Your task to perform on an android device: toggle sleep mode Image 0: 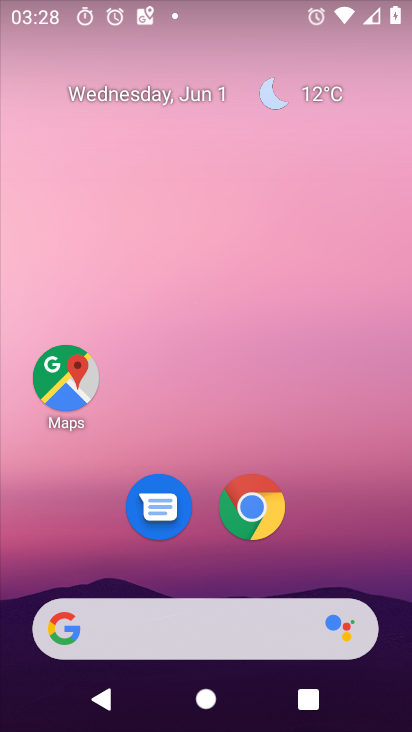
Step 0: drag from (329, 569) to (320, 10)
Your task to perform on an android device: toggle sleep mode Image 1: 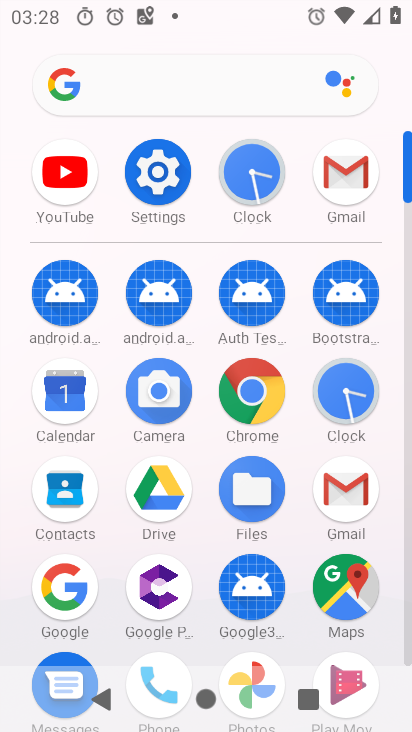
Step 1: click (152, 175)
Your task to perform on an android device: toggle sleep mode Image 2: 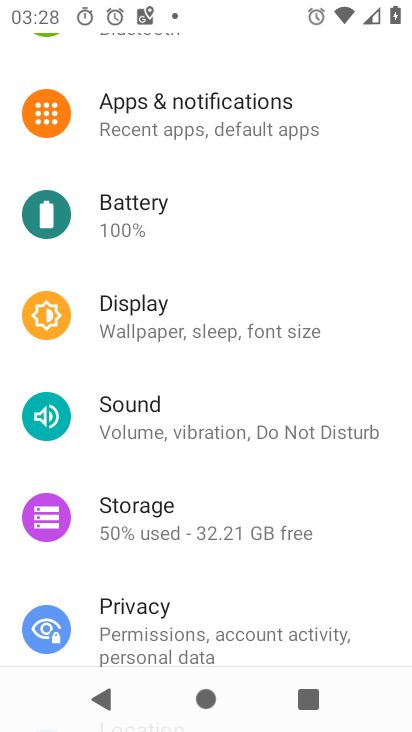
Step 2: click (165, 310)
Your task to perform on an android device: toggle sleep mode Image 3: 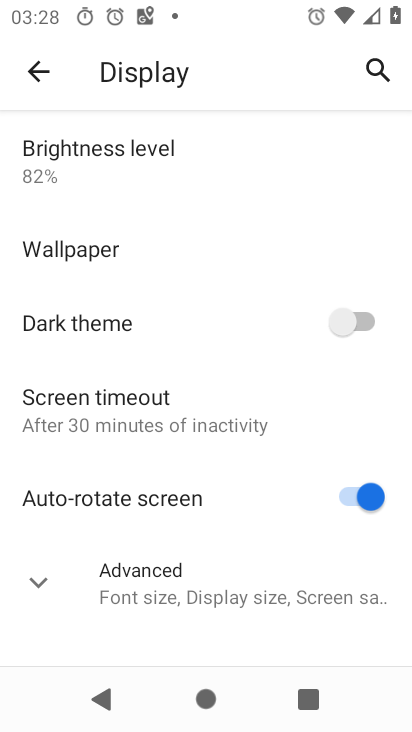
Step 3: click (37, 589)
Your task to perform on an android device: toggle sleep mode Image 4: 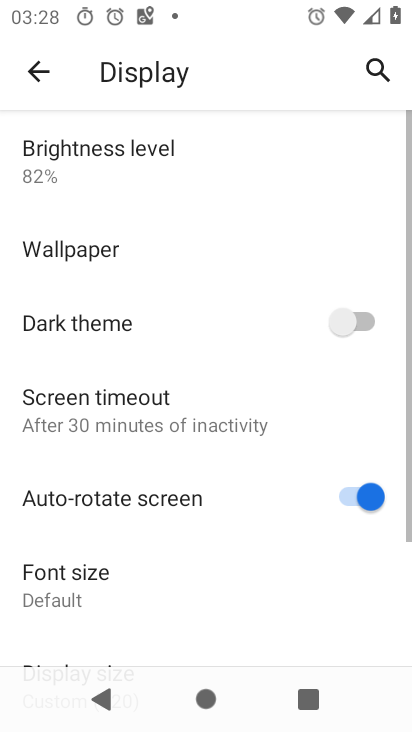
Step 4: task complete